Your task to perform on an android device: Empty the shopping cart on target.com. Search for "sony triple a" on target.com, select the first entry, add it to the cart, then select checkout. Image 0: 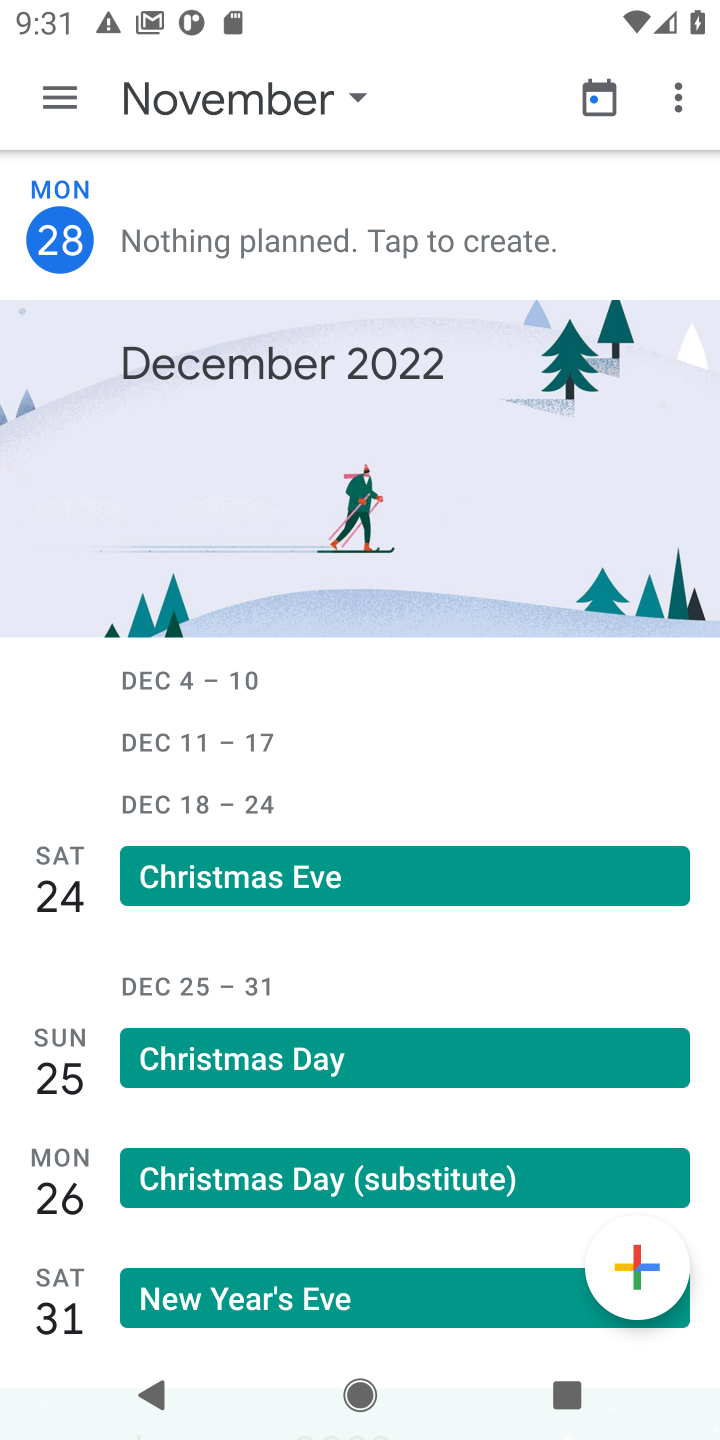
Step 0: press home button
Your task to perform on an android device: Empty the shopping cart on target.com. Search for "sony triple a" on target.com, select the first entry, add it to the cart, then select checkout. Image 1: 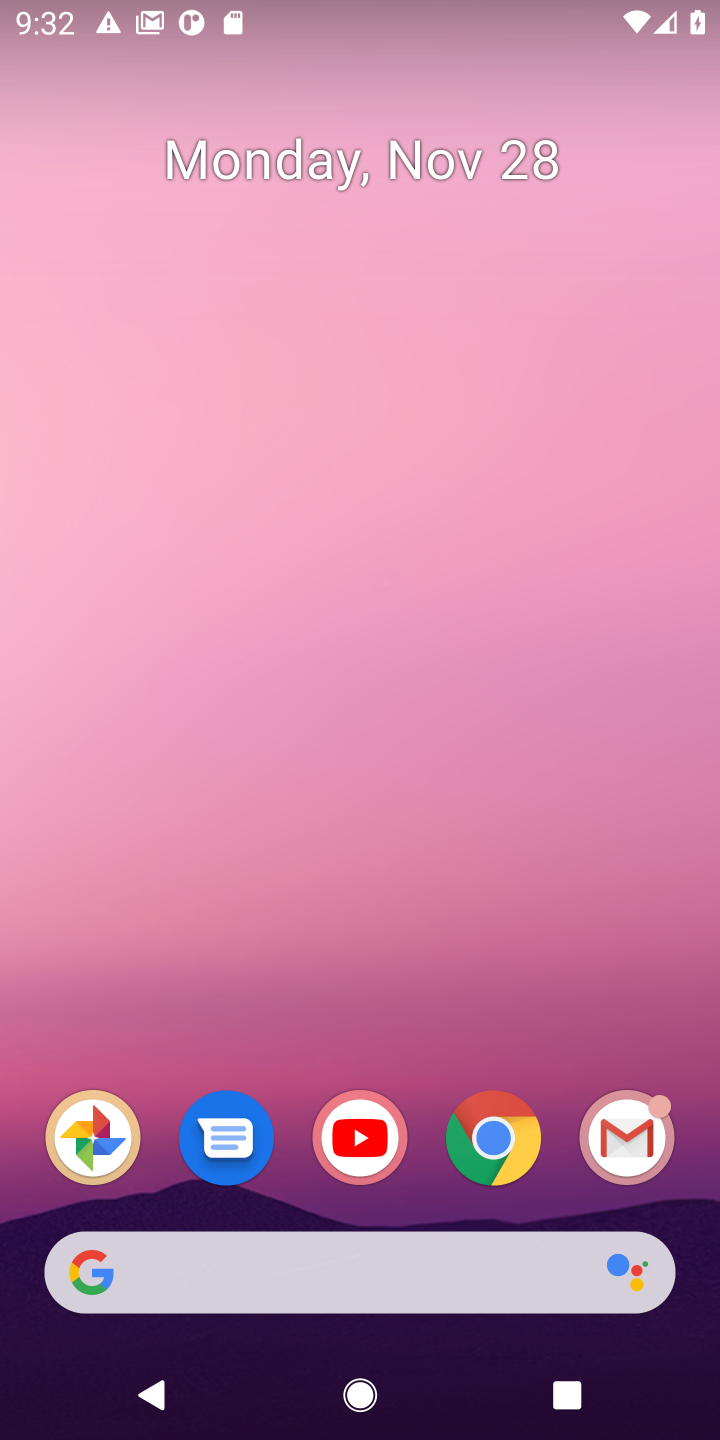
Step 1: click (493, 1139)
Your task to perform on an android device: Empty the shopping cart on target.com. Search for "sony triple a" on target.com, select the first entry, add it to the cart, then select checkout. Image 2: 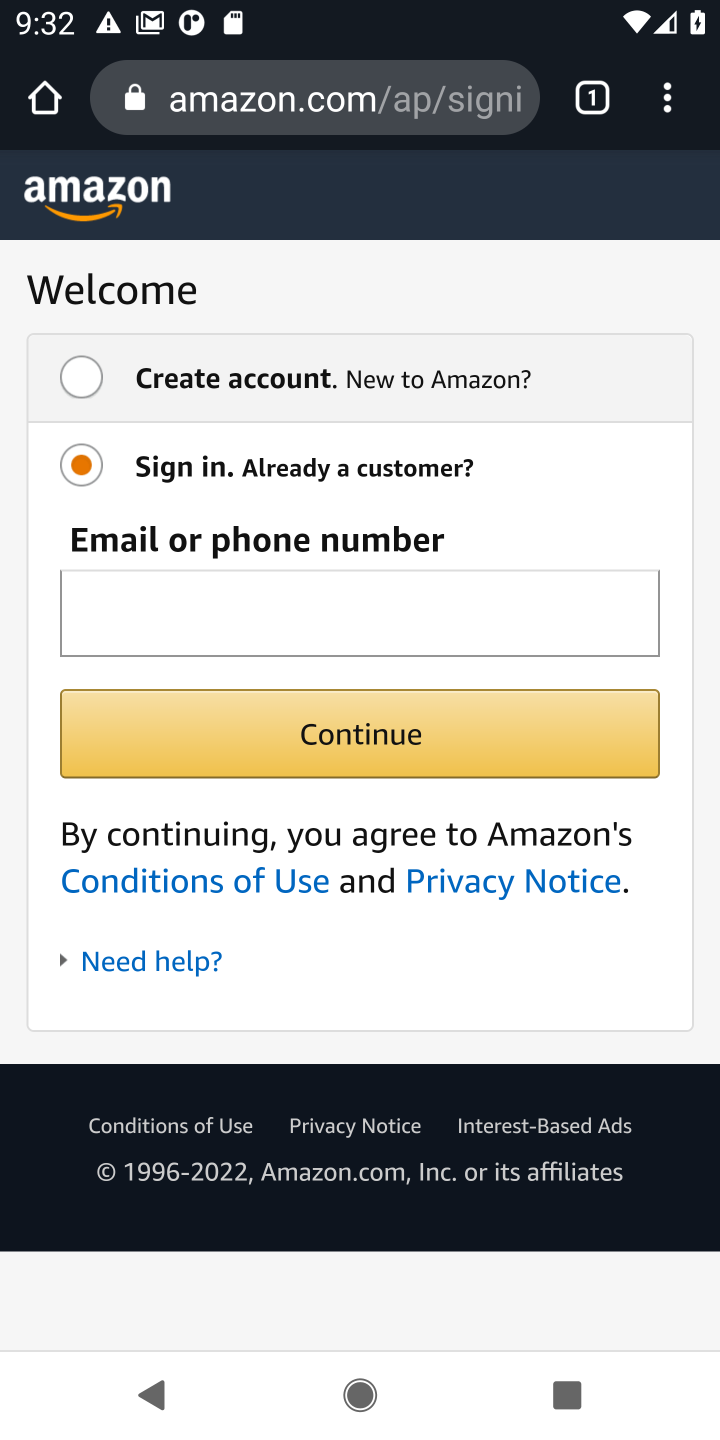
Step 2: click (297, 113)
Your task to perform on an android device: Empty the shopping cart on target.com. Search for "sony triple a" on target.com, select the first entry, add it to the cart, then select checkout. Image 3: 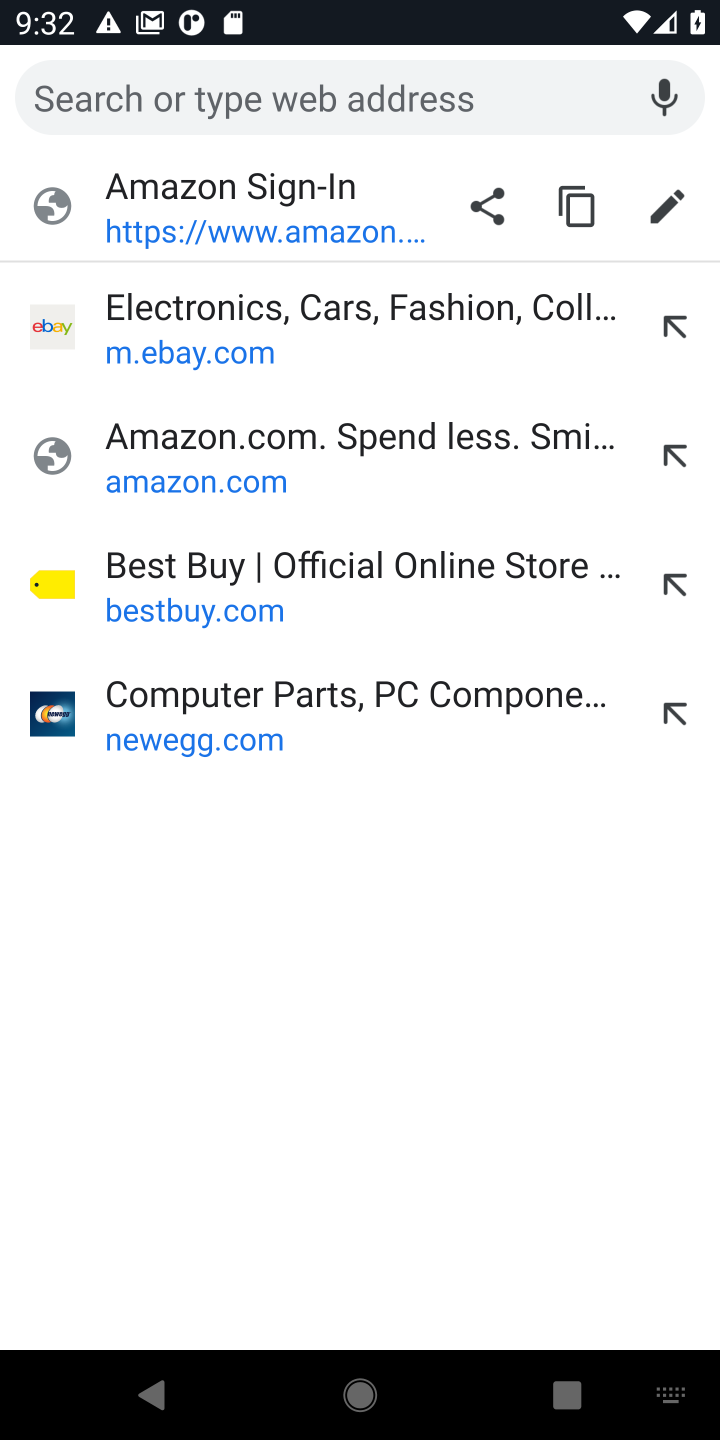
Step 3: type "target.com"
Your task to perform on an android device: Empty the shopping cart on target.com. Search for "sony triple a" on target.com, select the first entry, add it to the cart, then select checkout. Image 4: 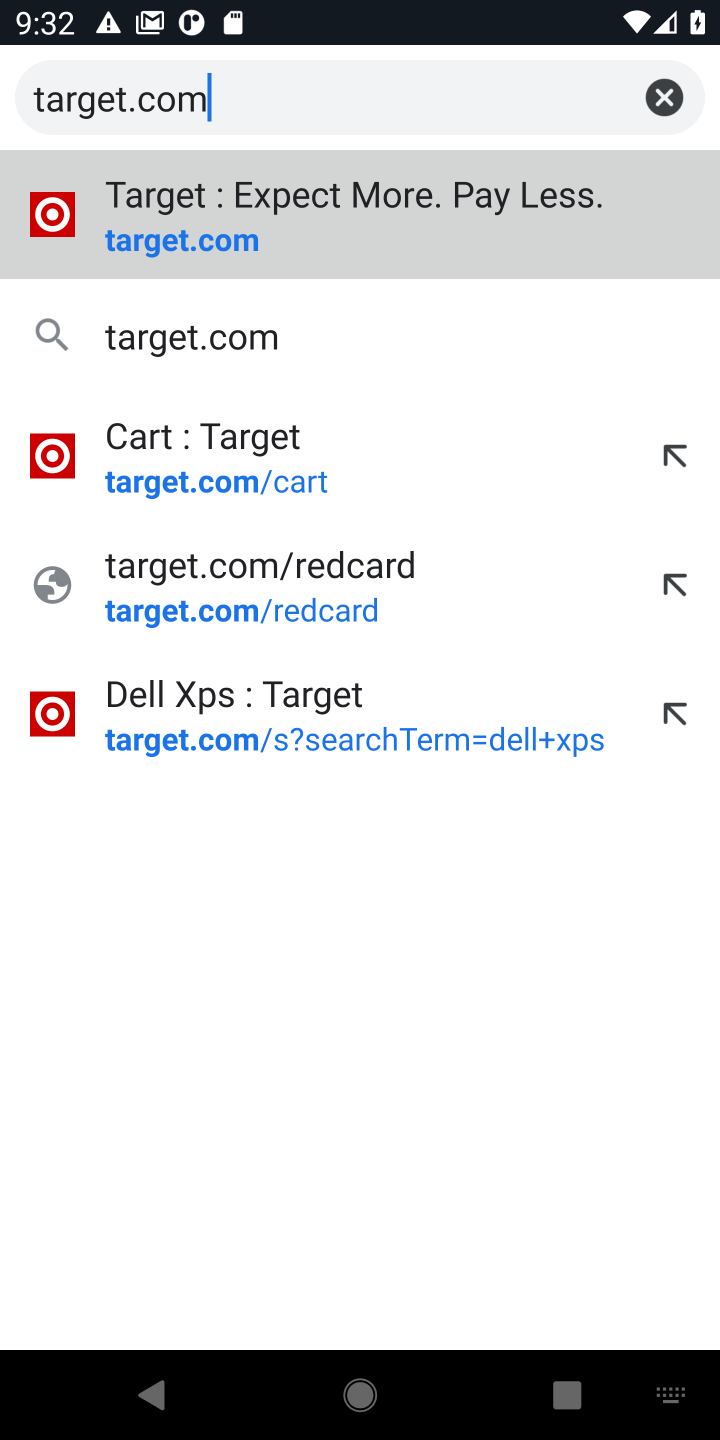
Step 4: click (161, 249)
Your task to perform on an android device: Empty the shopping cart on target.com. Search for "sony triple a" on target.com, select the first entry, add it to the cart, then select checkout. Image 5: 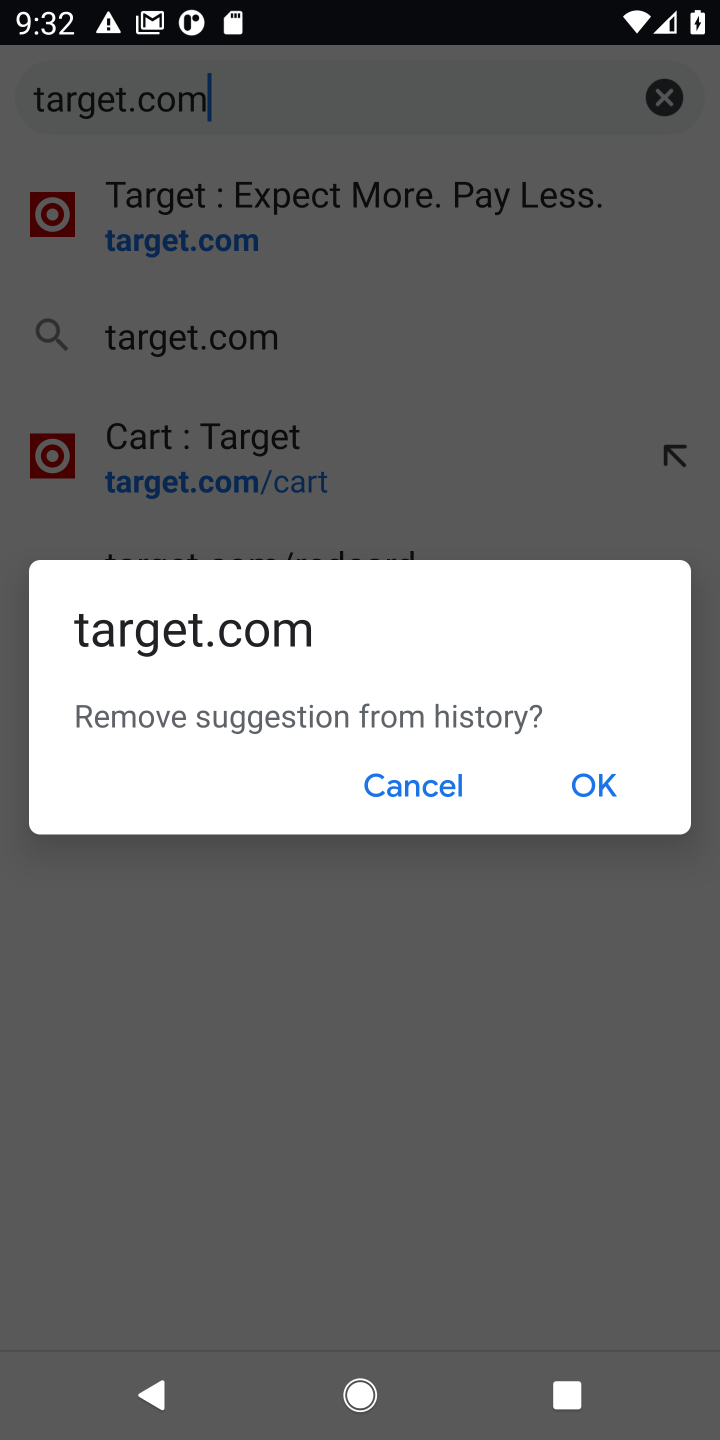
Step 5: click (383, 775)
Your task to perform on an android device: Empty the shopping cart on target.com. Search for "sony triple a" on target.com, select the first entry, add it to the cart, then select checkout. Image 6: 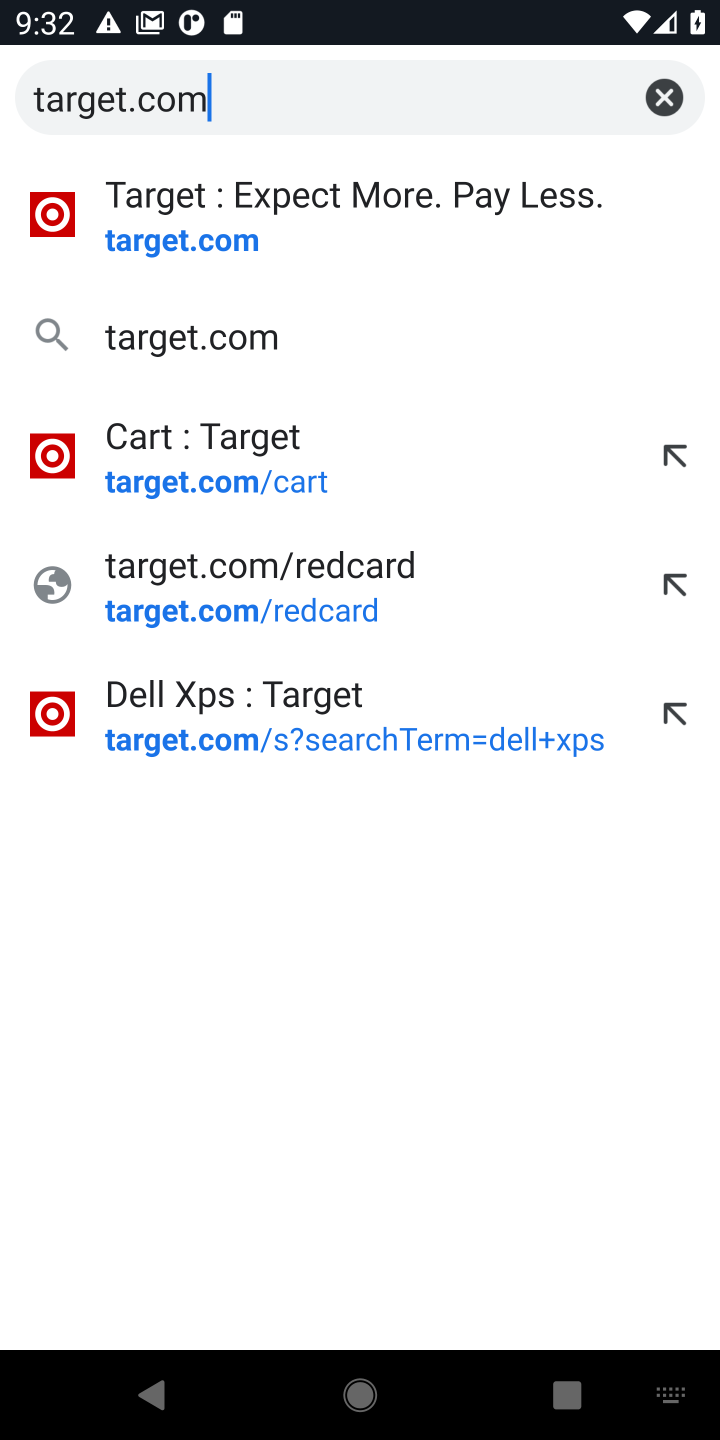
Step 6: click (141, 251)
Your task to perform on an android device: Empty the shopping cart on target.com. Search for "sony triple a" on target.com, select the first entry, add it to the cart, then select checkout. Image 7: 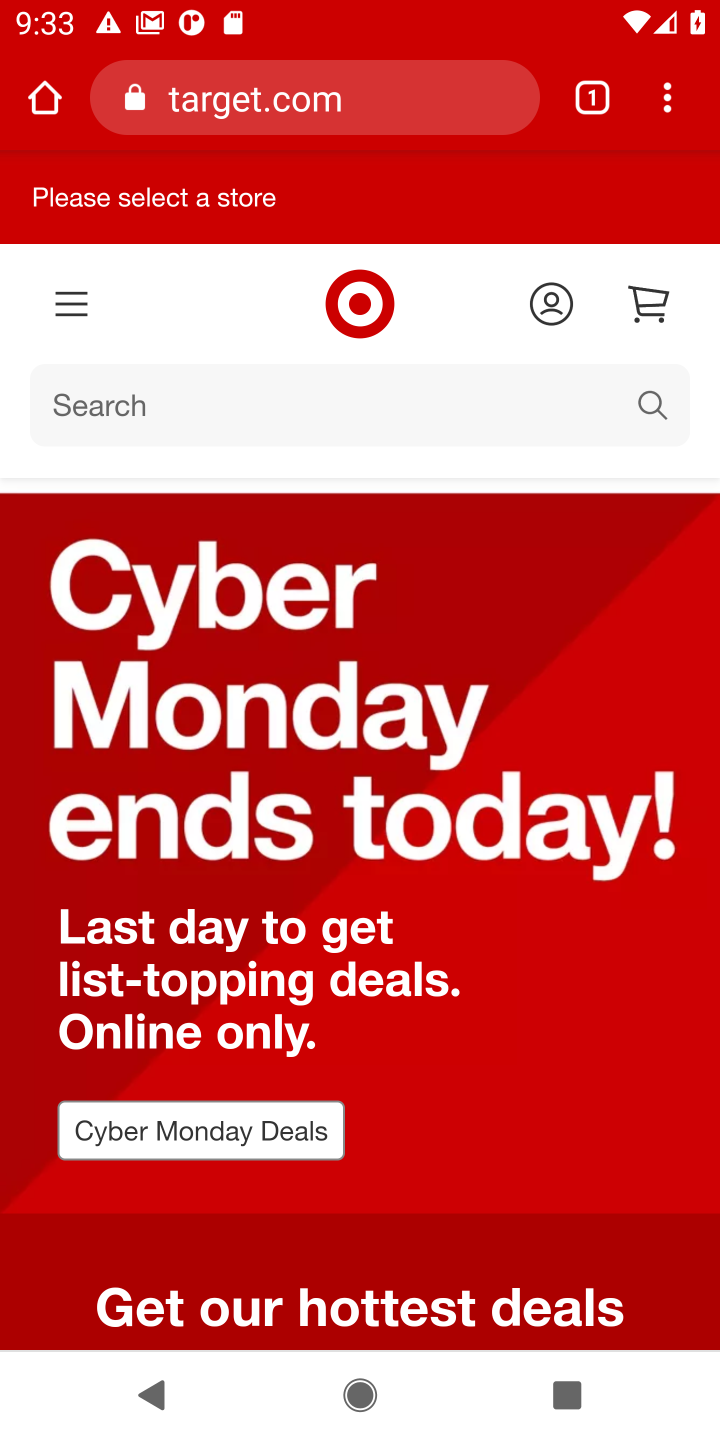
Step 7: click (643, 311)
Your task to perform on an android device: Empty the shopping cart on target.com. Search for "sony triple a" on target.com, select the first entry, add it to the cart, then select checkout. Image 8: 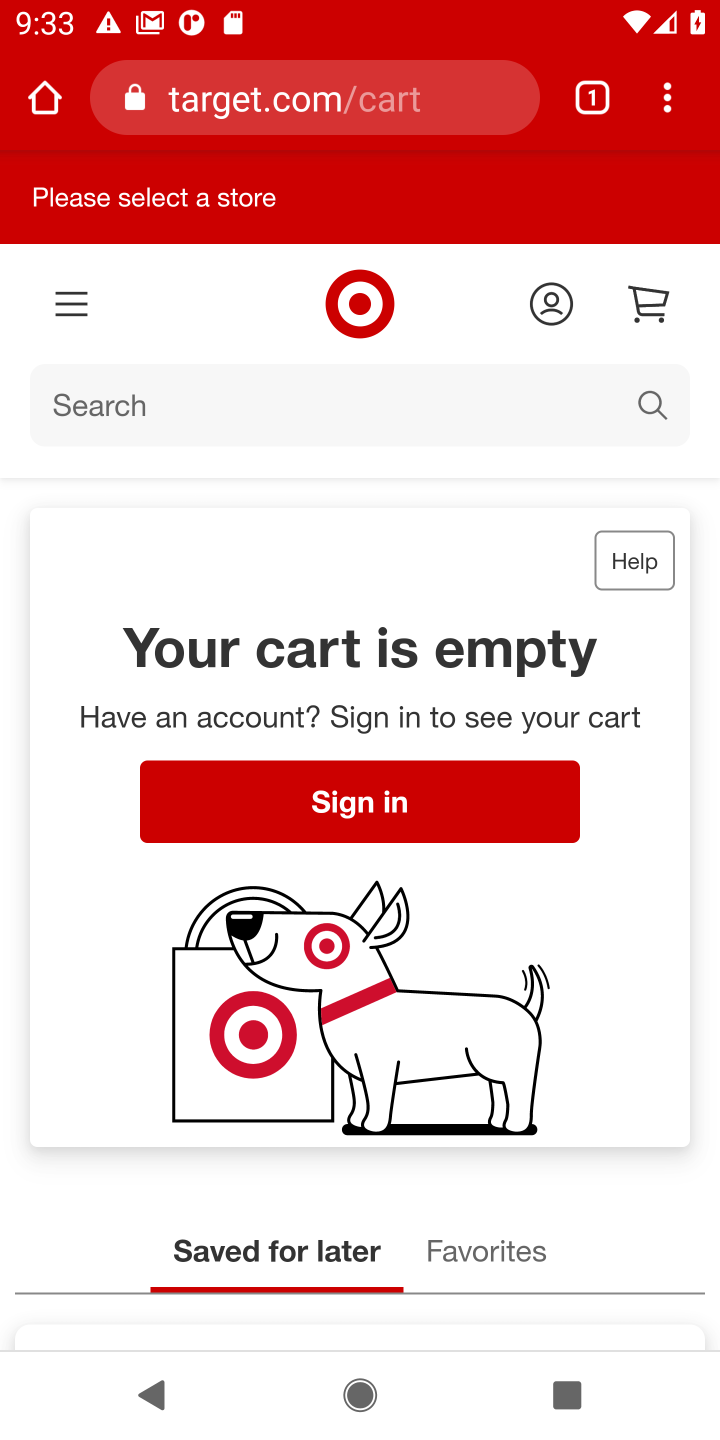
Step 8: click (90, 409)
Your task to perform on an android device: Empty the shopping cart on target.com. Search for "sony triple a" on target.com, select the first entry, add it to the cart, then select checkout. Image 9: 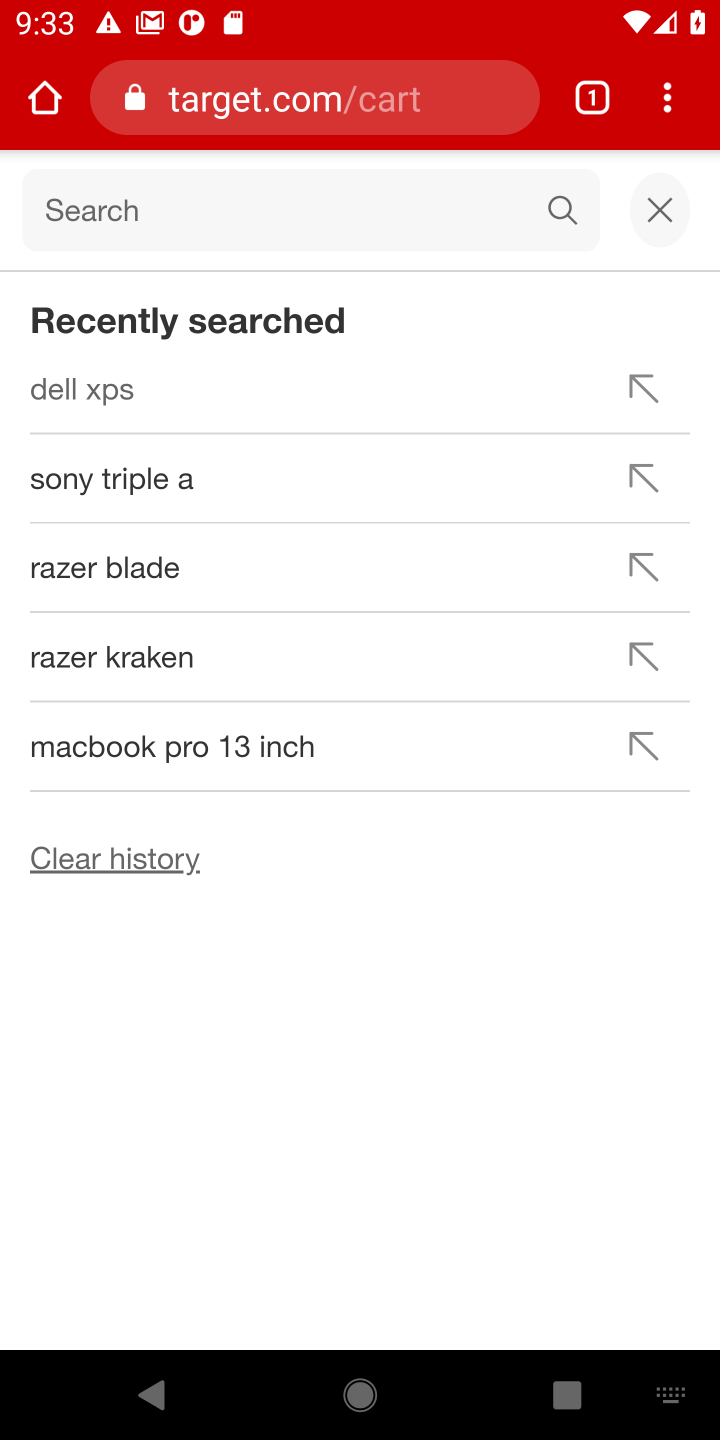
Step 9: type "sony triple a"
Your task to perform on an android device: Empty the shopping cart on target.com. Search for "sony triple a" on target.com, select the first entry, add it to the cart, then select checkout. Image 10: 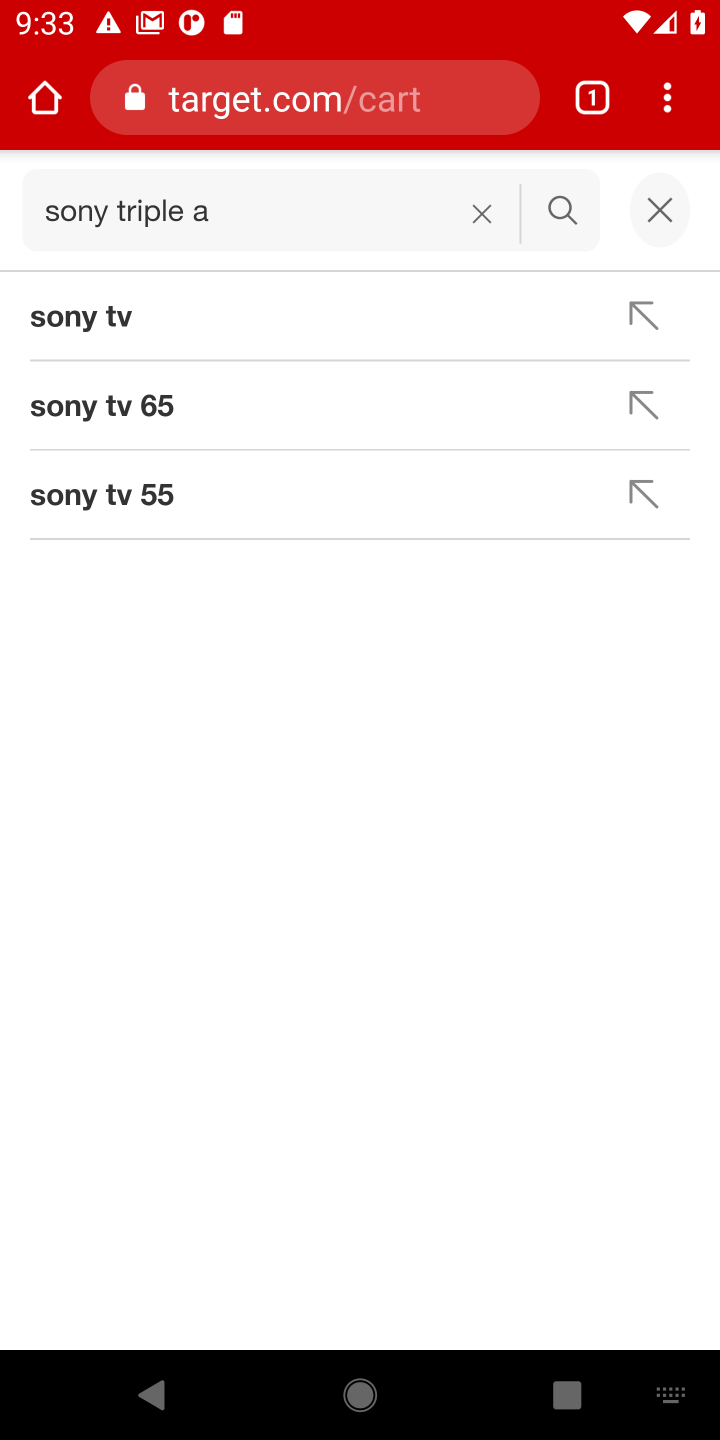
Step 10: click (557, 209)
Your task to perform on an android device: Empty the shopping cart on target.com. Search for "sony triple a" on target.com, select the first entry, add it to the cart, then select checkout. Image 11: 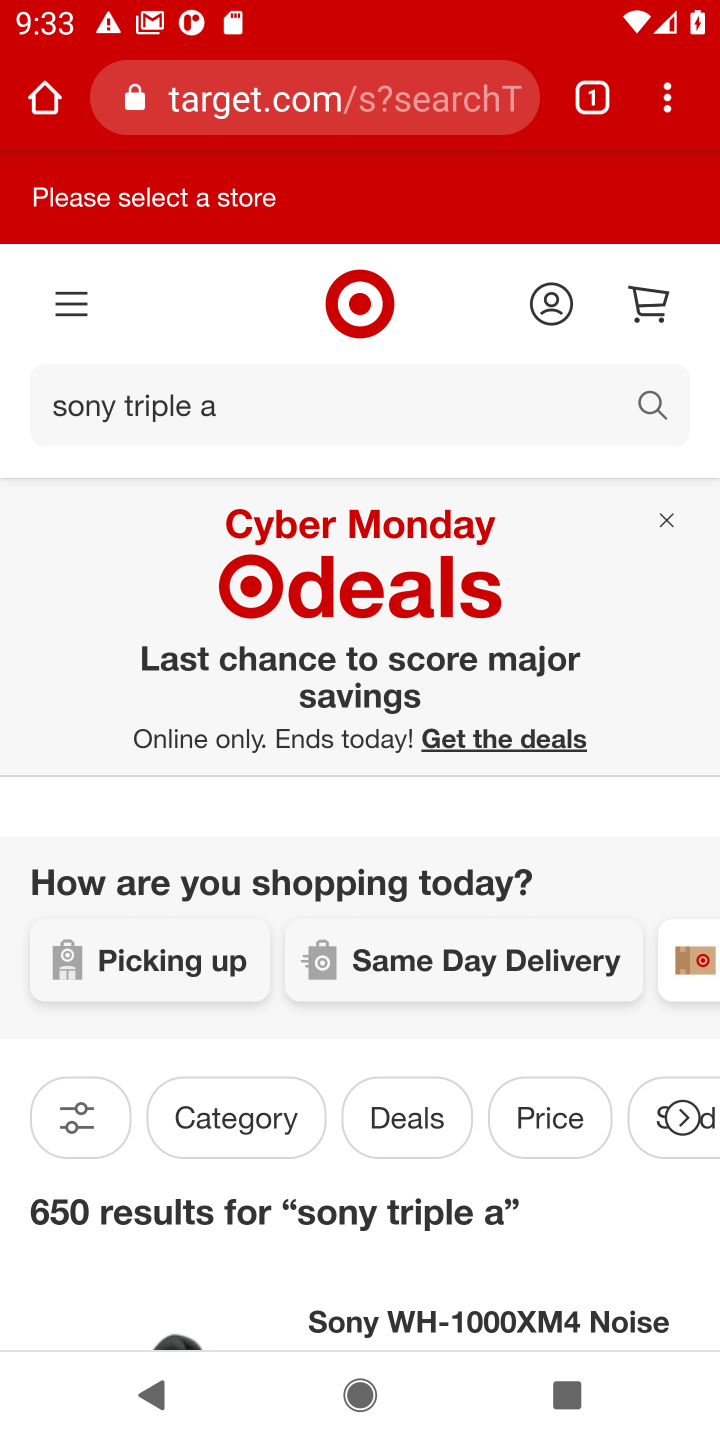
Step 11: task complete